Your task to perform on an android device: Show me popular videos on Youtube Image 0: 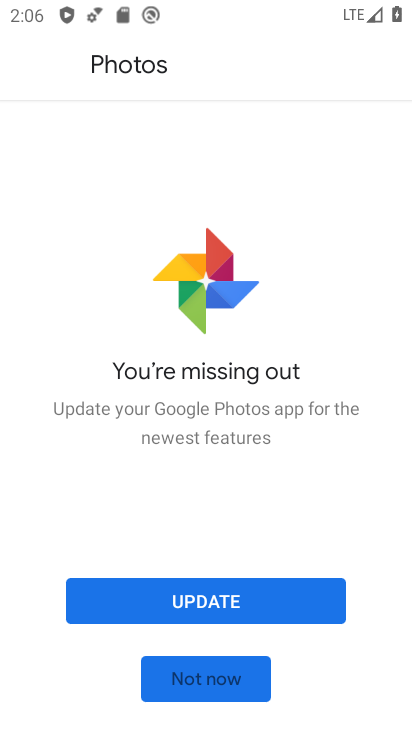
Step 0: press home button
Your task to perform on an android device: Show me popular videos on Youtube Image 1: 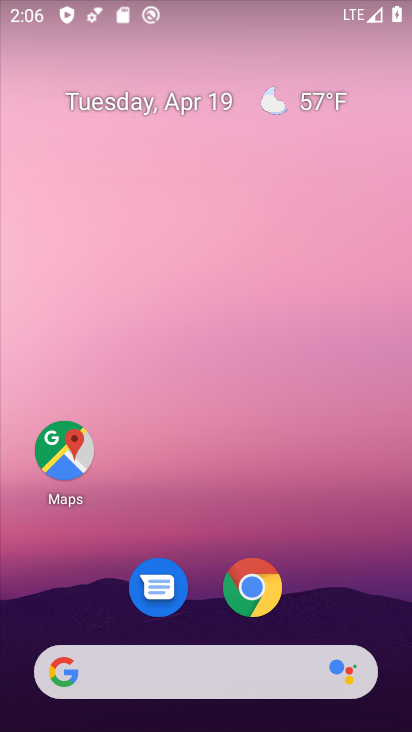
Step 1: drag from (346, 633) to (279, 147)
Your task to perform on an android device: Show me popular videos on Youtube Image 2: 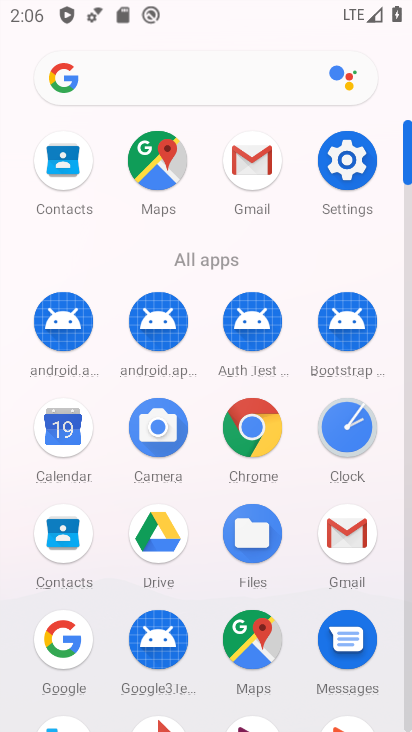
Step 2: click (399, 591)
Your task to perform on an android device: Show me popular videos on Youtube Image 3: 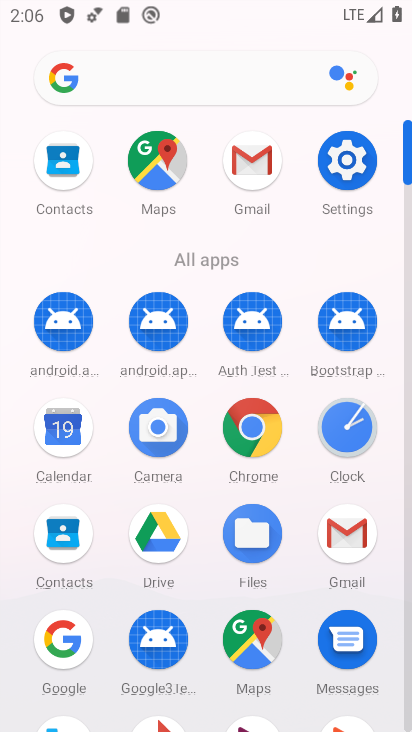
Step 3: click (395, 501)
Your task to perform on an android device: Show me popular videos on Youtube Image 4: 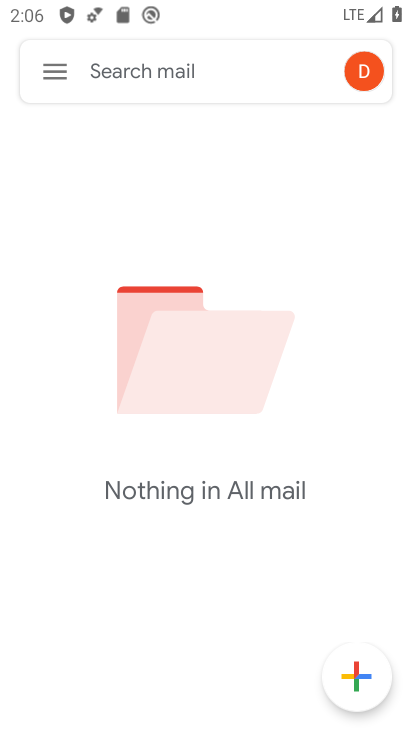
Step 4: click (395, 499)
Your task to perform on an android device: Show me popular videos on Youtube Image 5: 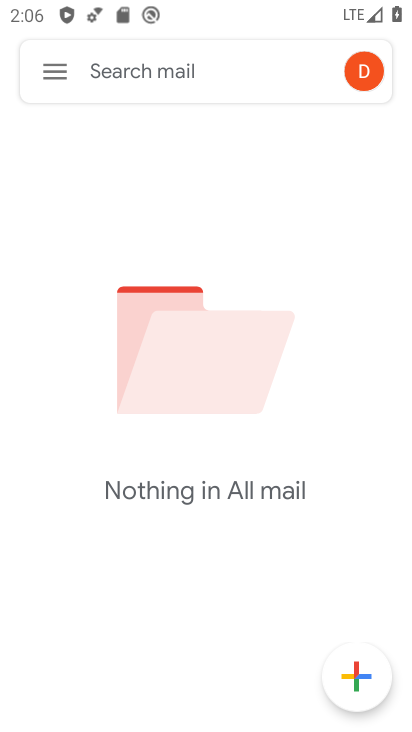
Step 5: press home button
Your task to perform on an android device: Show me popular videos on Youtube Image 6: 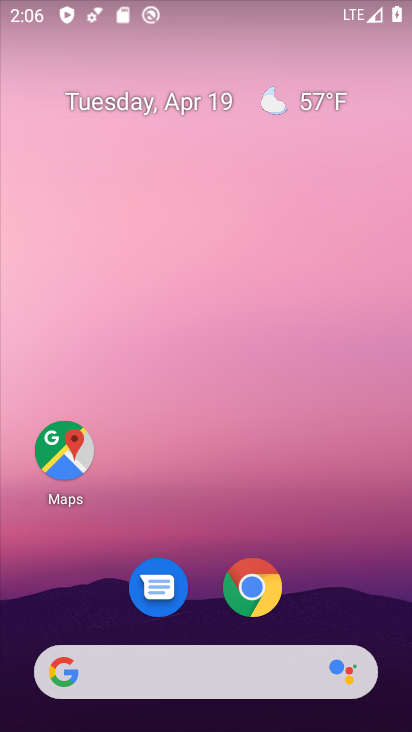
Step 6: drag from (245, 411) to (232, 154)
Your task to perform on an android device: Show me popular videos on Youtube Image 7: 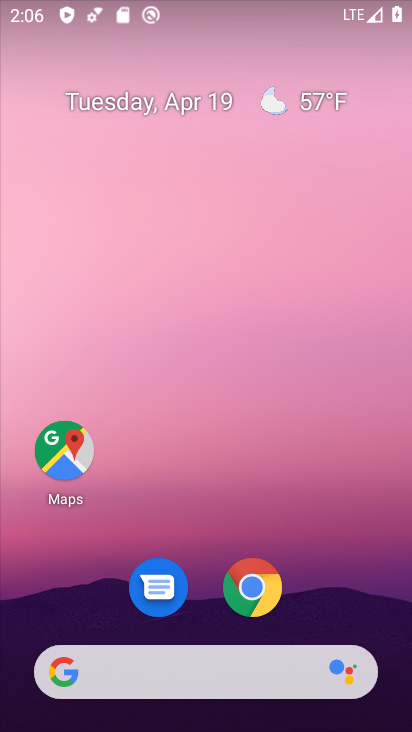
Step 7: drag from (248, 419) to (245, 356)
Your task to perform on an android device: Show me popular videos on Youtube Image 8: 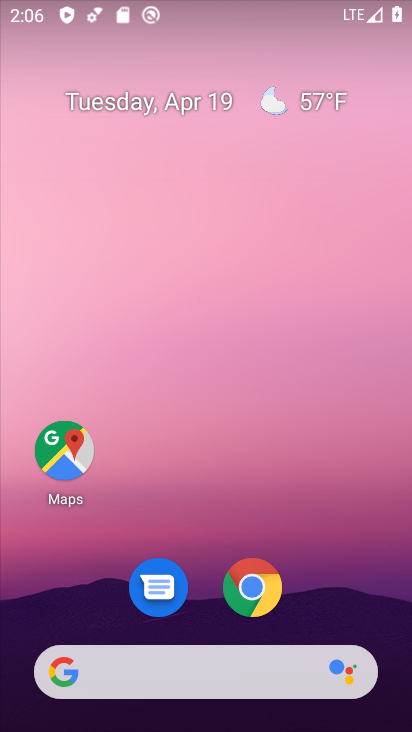
Step 8: drag from (330, 662) to (283, 242)
Your task to perform on an android device: Show me popular videos on Youtube Image 9: 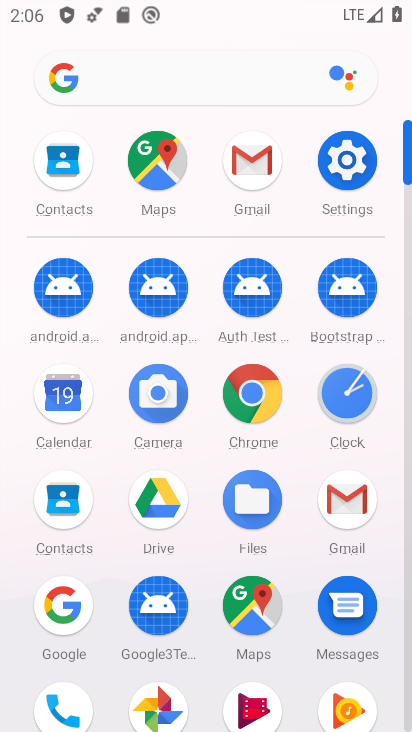
Step 9: drag from (262, 625) to (276, 349)
Your task to perform on an android device: Show me popular videos on Youtube Image 10: 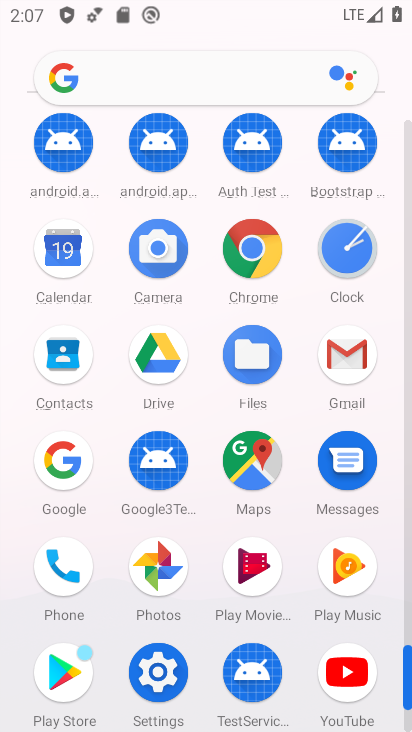
Step 10: click (339, 658)
Your task to perform on an android device: Show me popular videos on Youtube Image 11: 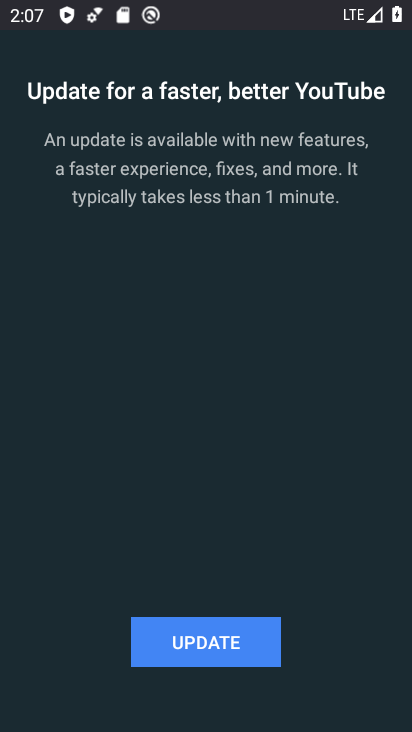
Step 11: click (196, 642)
Your task to perform on an android device: Show me popular videos on Youtube Image 12: 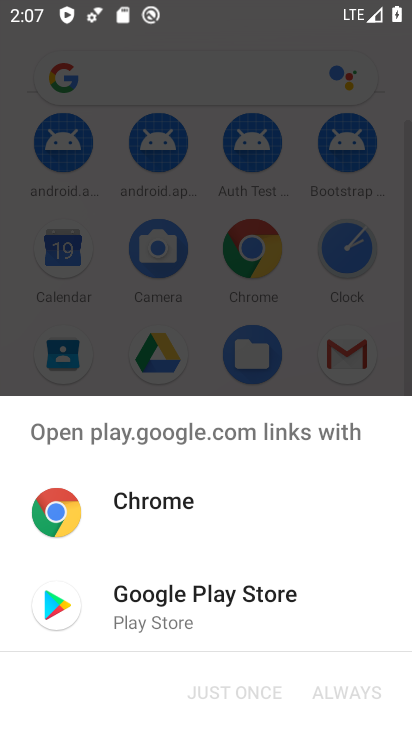
Step 12: click (190, 600)
Your task to perform on an android device: Show me popular videos on Youtube Image 13: 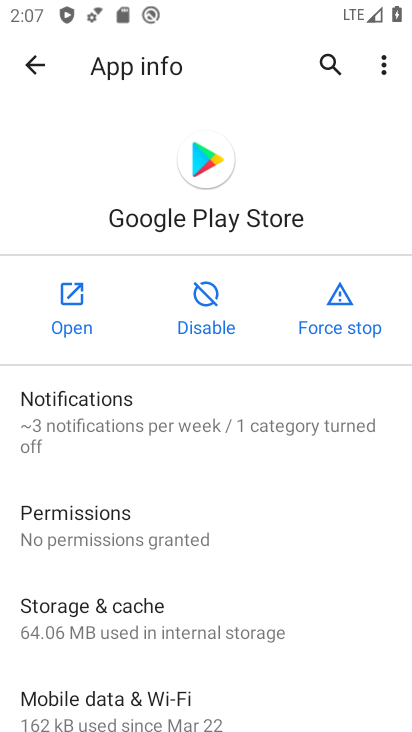
Step 13: click (26, 65)
Your task to perform on an android device: Show me popular videos on Youtube Image 14: 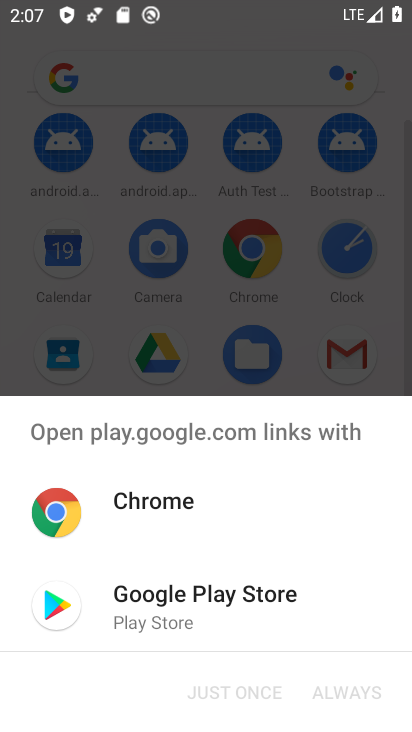
Step 14: press home button
Your task to perform on an android device: Show me popular videos on Youtube Image 15: 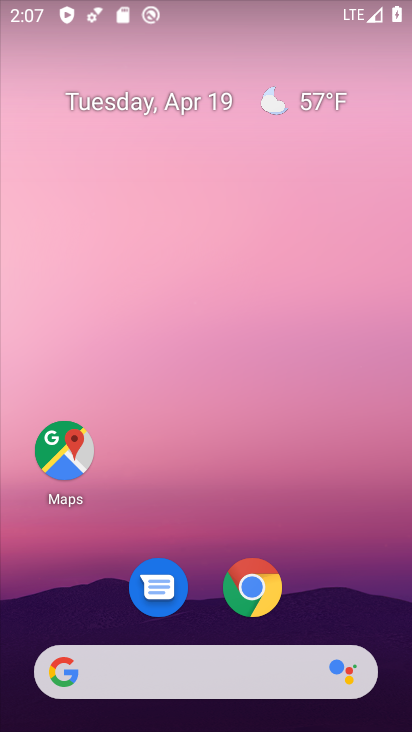
Step 15: drag from (337, 640) to (173, 122)
Your task to perform on an android device: Show me popular videos on Youtube Image 16: 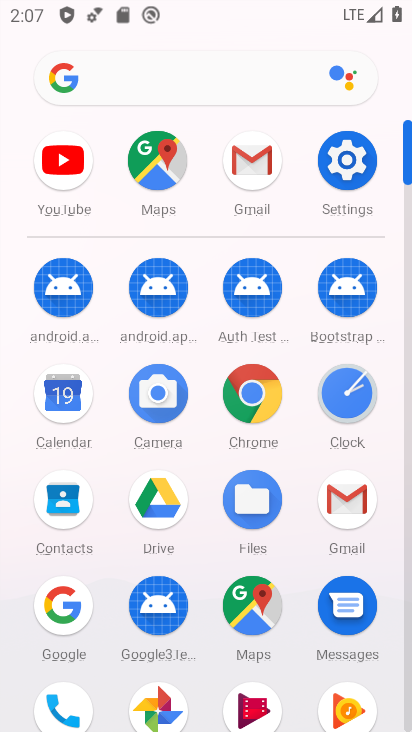
Step 16: click (69, 154)
Your task to perform on an android device: Show me popular videos on Youtube Image 17: 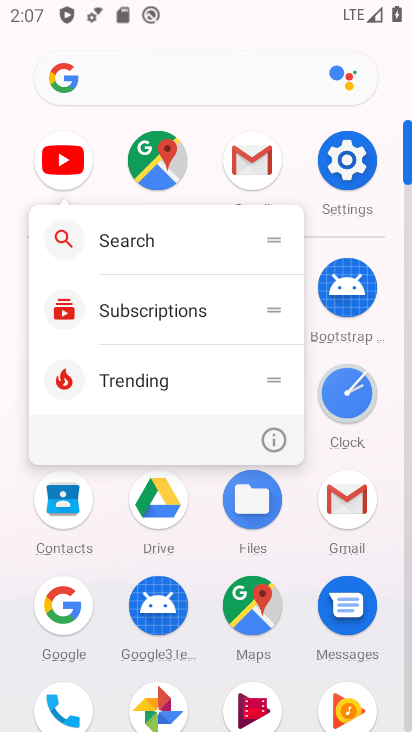
Step 17: click (61, 190)
Your task to perform on an android device: Show me popular videos on Youtube Image 18: 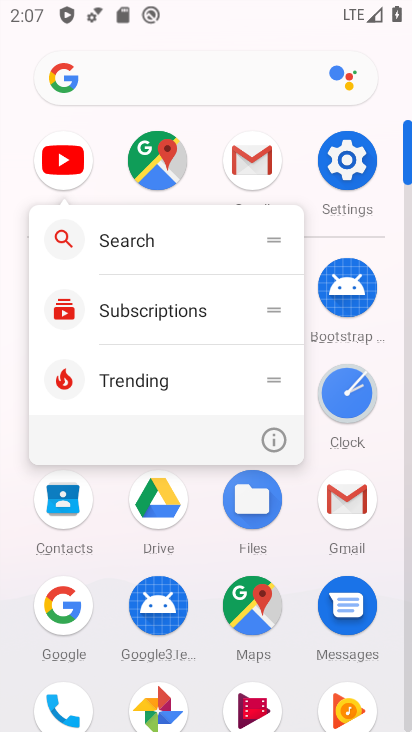
Step 18: click (61, 190)
Your task to perform on an android device: Show me popular videos on Youtube Image 19: 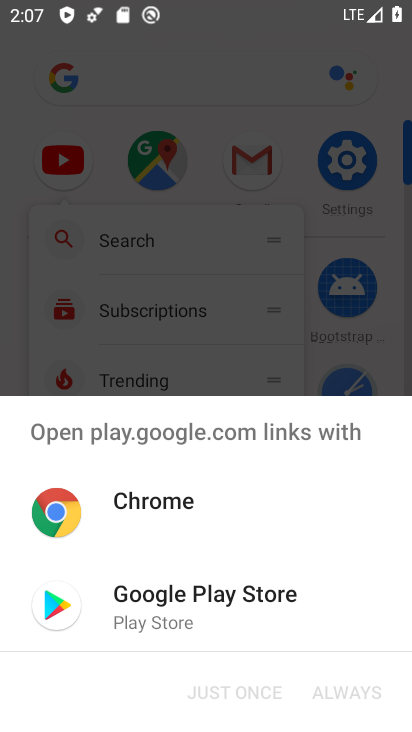
Step 19: click (154, 485)
Your task to perform on an android device: Show me popular videos on Youtube Image 20: 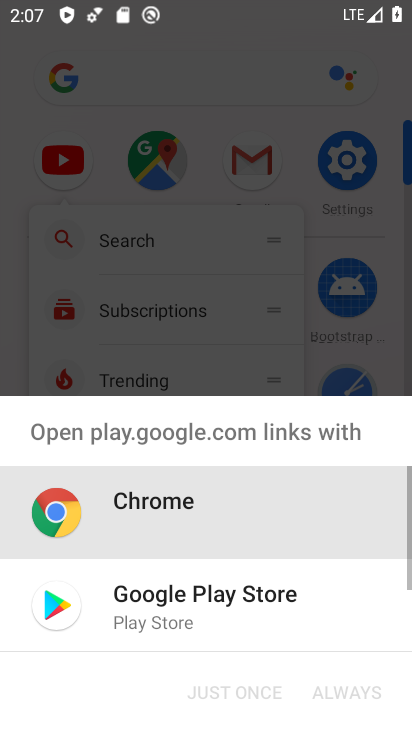
Step 20: click (151, 500)
Your task to perform on an android device: Show me popular videos on Youtube Image 21: 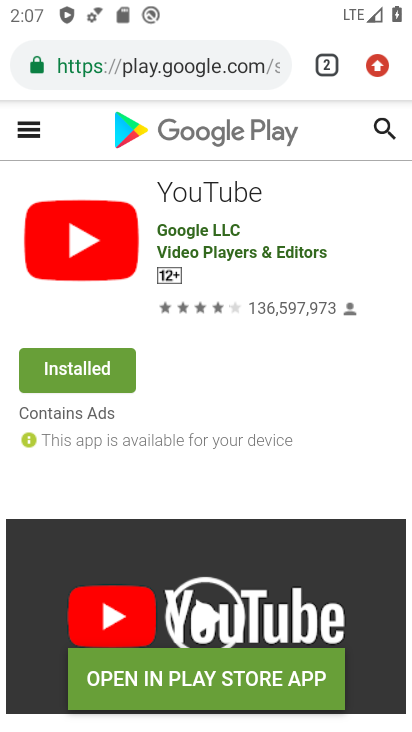
Step 21: drag from (228, 568) to (197, 272)
Your task to perform on an android device: Show me popular videos on Youtube Image 22: 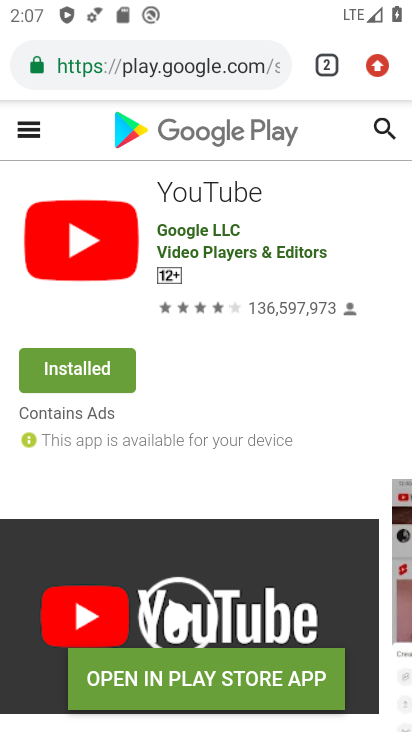
Step 22: drag from (135, 519) to (153, 308)
Your task to perform on an android device: Show me popular videos on Youtube Image 23: 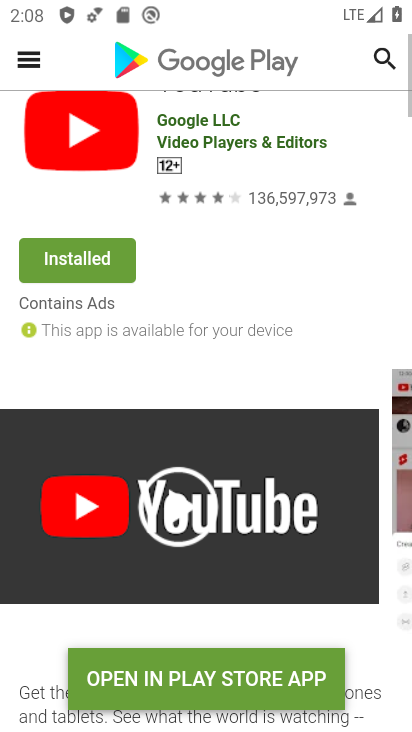
Step 23: drag from (144, 457) to (188, 302)
Your task to perform on an android device: Show me popular videos on Youtube Image 24: 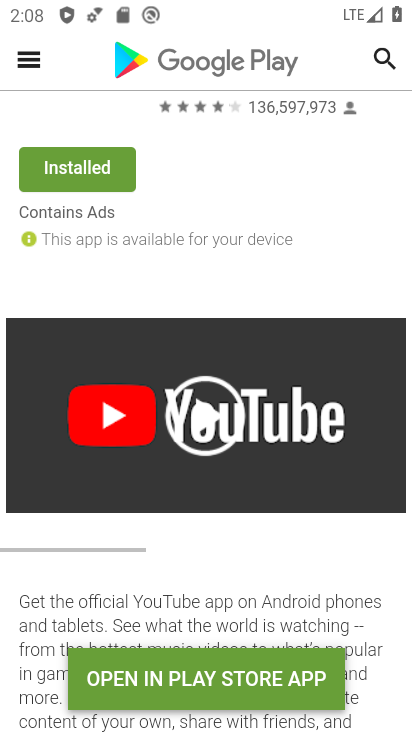
Step 24: drag from (226, 408) to (267, 332)
Your task to perform on an android device: Show me popular videos on Youtube Image 25: 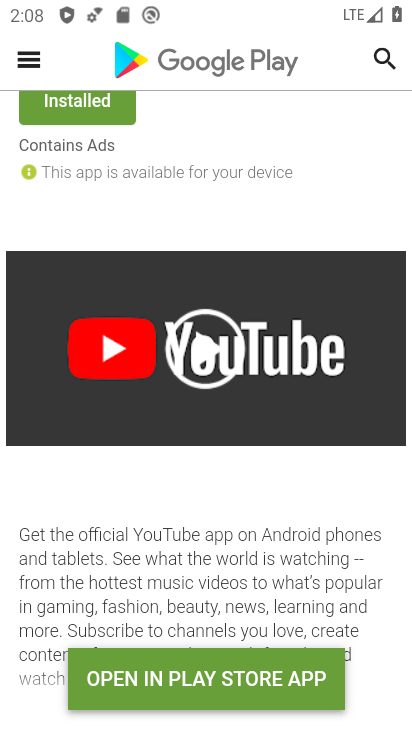
Step 25: click (233, 672)
Your task to perform on an android device: Show me popular videos on Youtube Image 26: 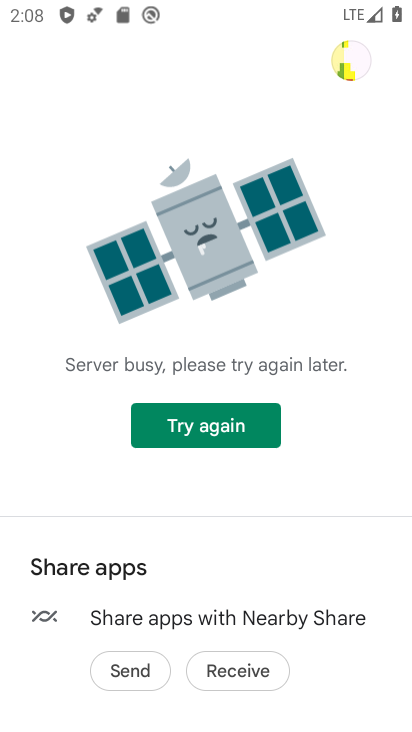
Step 26: task complete